Your task to perform on an android device: Open my contact list Image 0: 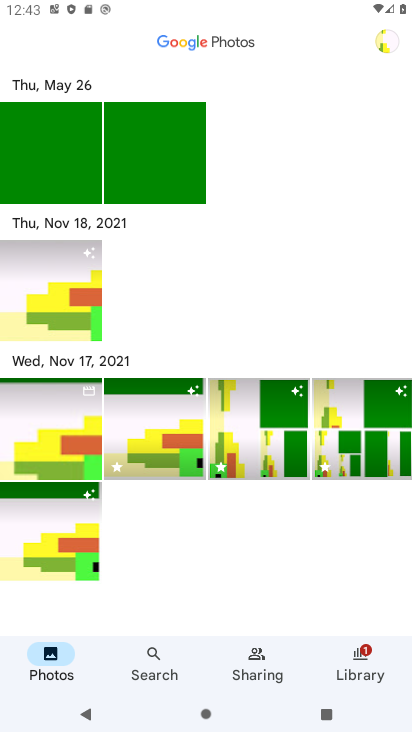
Step 0: press home button
Your task to perform on an android device: Open my contact list Image 1: 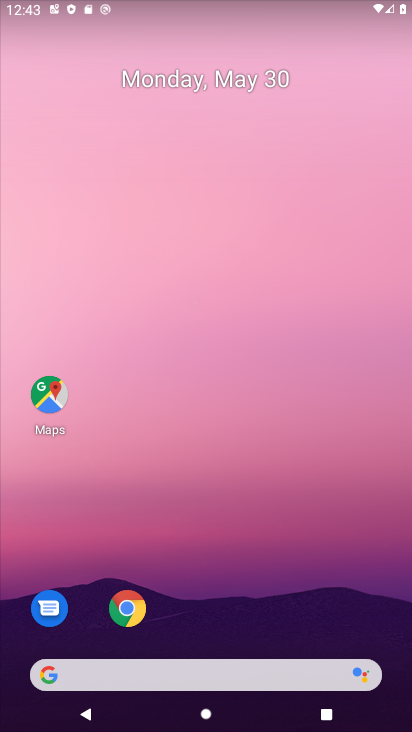
Step 1: drag from (310, 604) to (310, 49)
Your task to perform on an android device: Open my contact list Image 2: 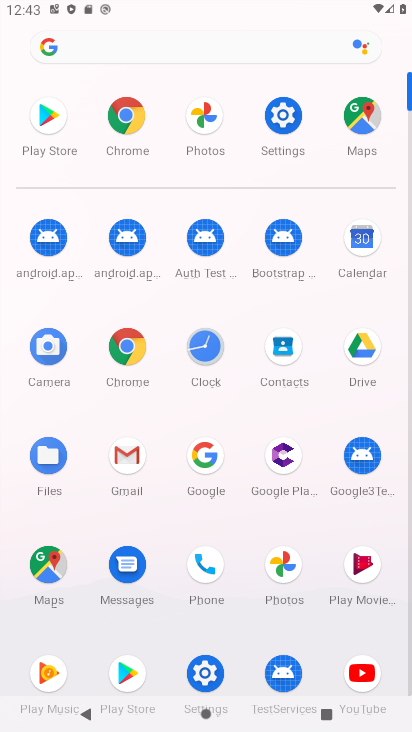
Step 2: click (272, 355)
Your task to perform on an android device: Open my contact list Image 3: 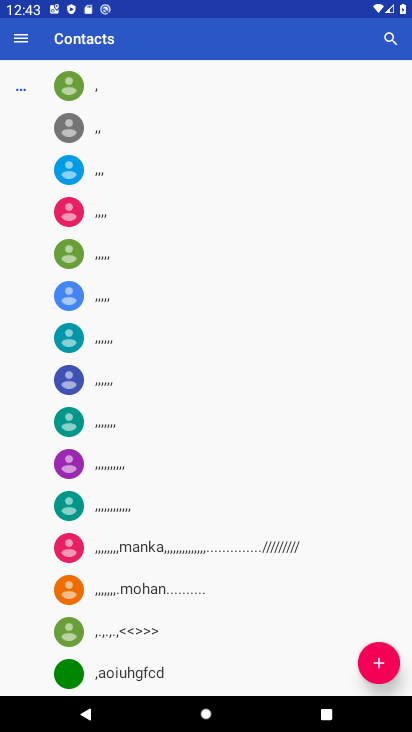
Step 3: task complete